Your task to perform on an android device: See recent photos Image 0: 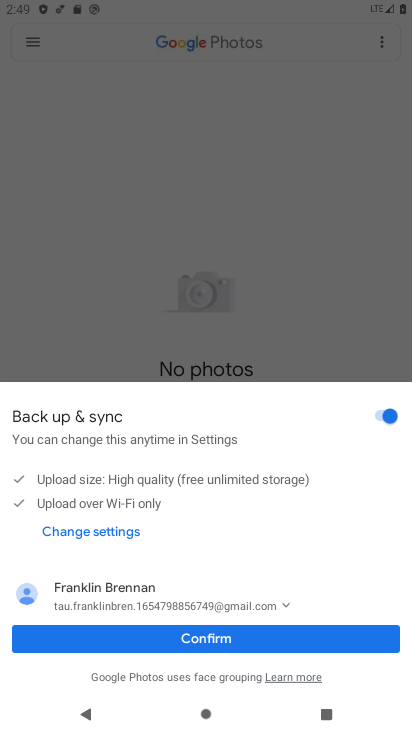
Step 0: press home button
Your task to perform on an android device: See recent photos Image 1: 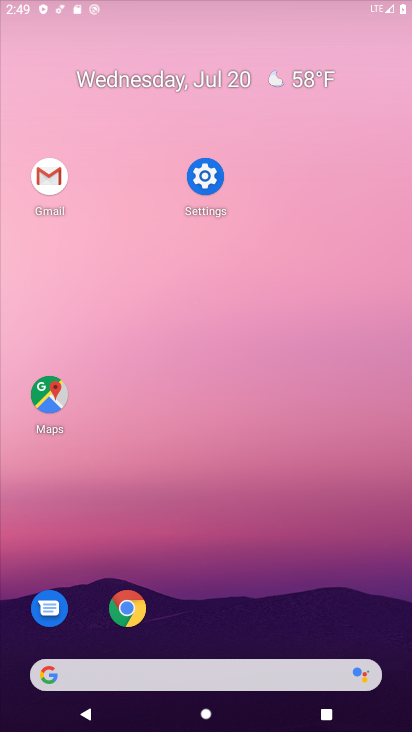
Step 1: drag from (254, 524) to (283, 108)
Your task to perform on an android device: See recent photos Image 2: 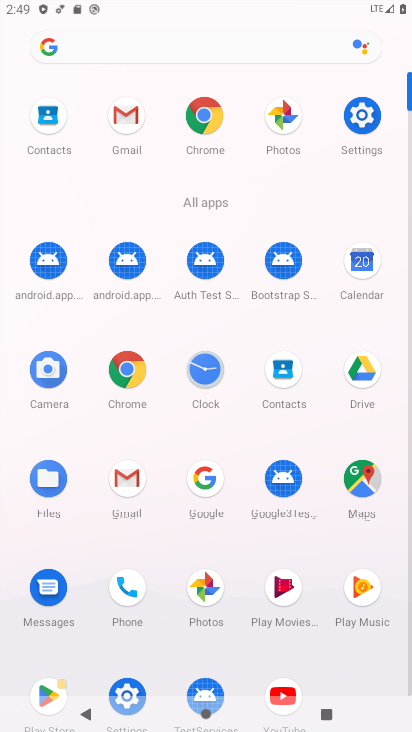
Step 2: drag from (285, 111) to (126, 208)
Your task to perform on an android device: See recent photos Image 3: 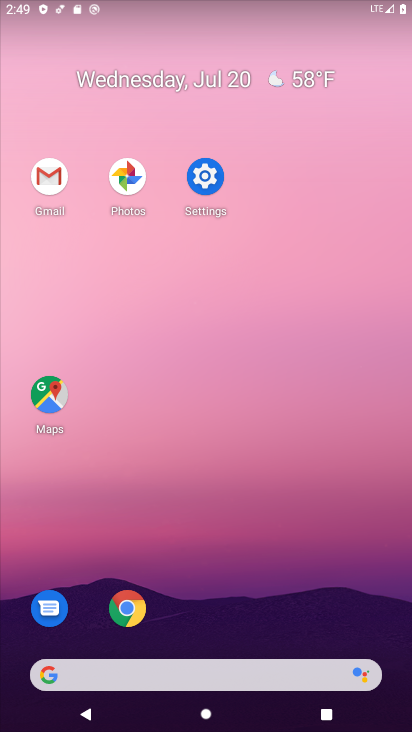
Step 3: click (127, 208)
Your task to perform on an android device: See recent photos Image 4: 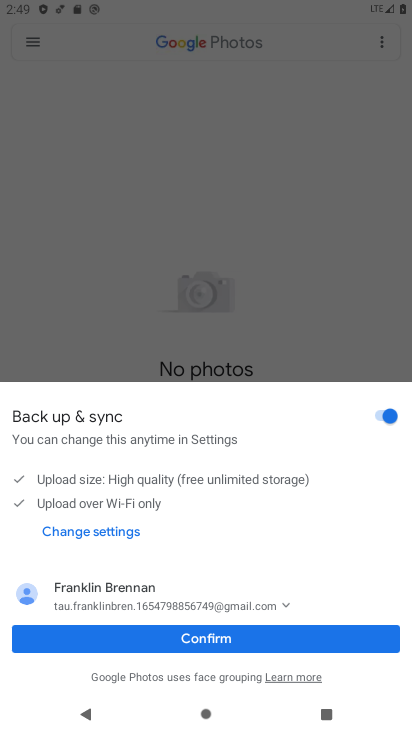
Step 4: click (229, 640)
Your task to perform on an android device: See recent photos Image 5: 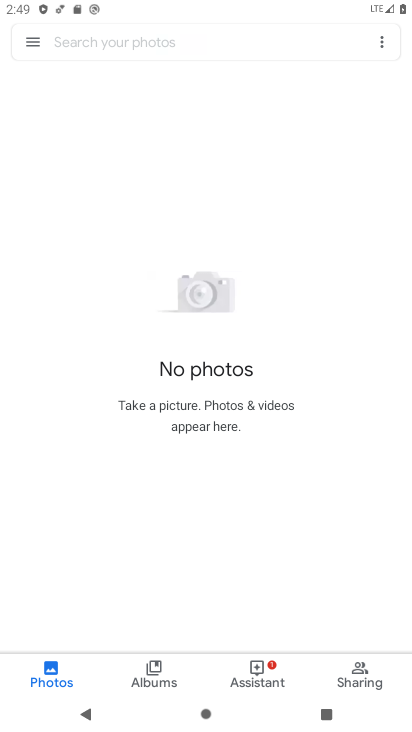
Step 5: task complete